Your task to perform on an android device: turn off smart reply in the gmail app Image 0: 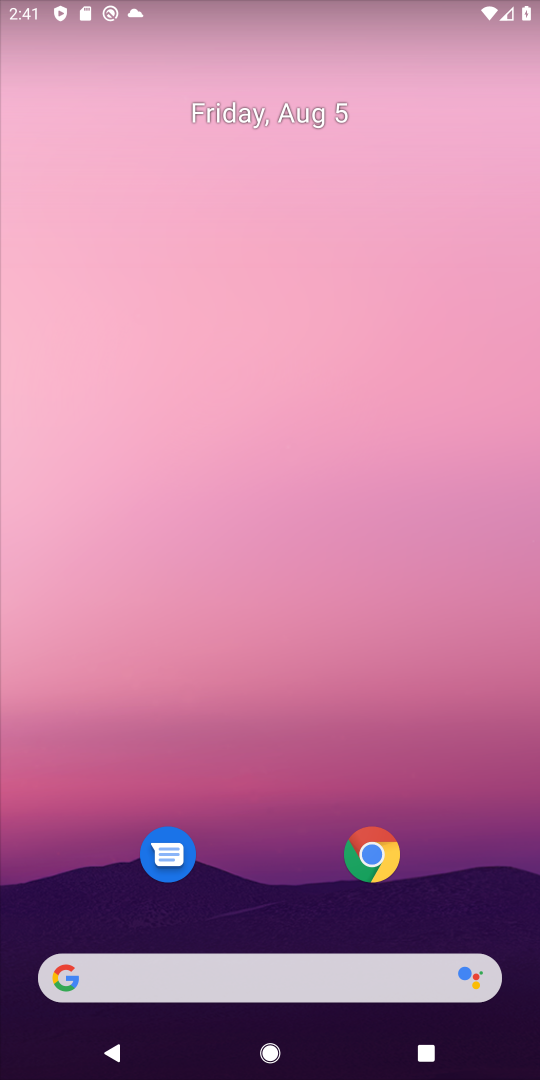
Step 0: drag from (55, 1056) to (312, 354)
Your task to perform on an android device: turn off smart reply in the gmail app Image 1: 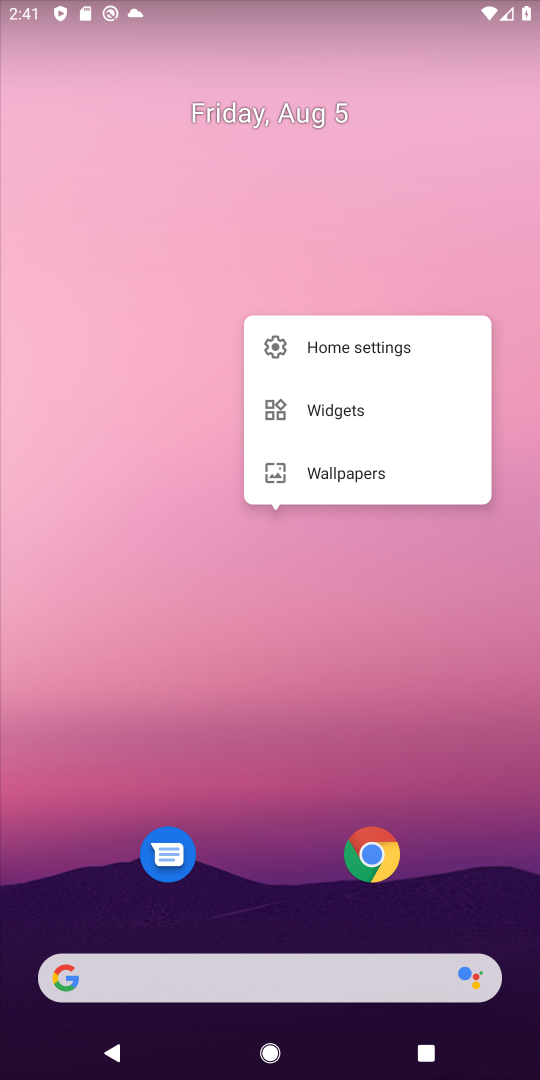
Step 1: drag from (52, 1056) to (389, 275)
Your task to perform on an android device: turn off smart reply in the gmail app Image 2: 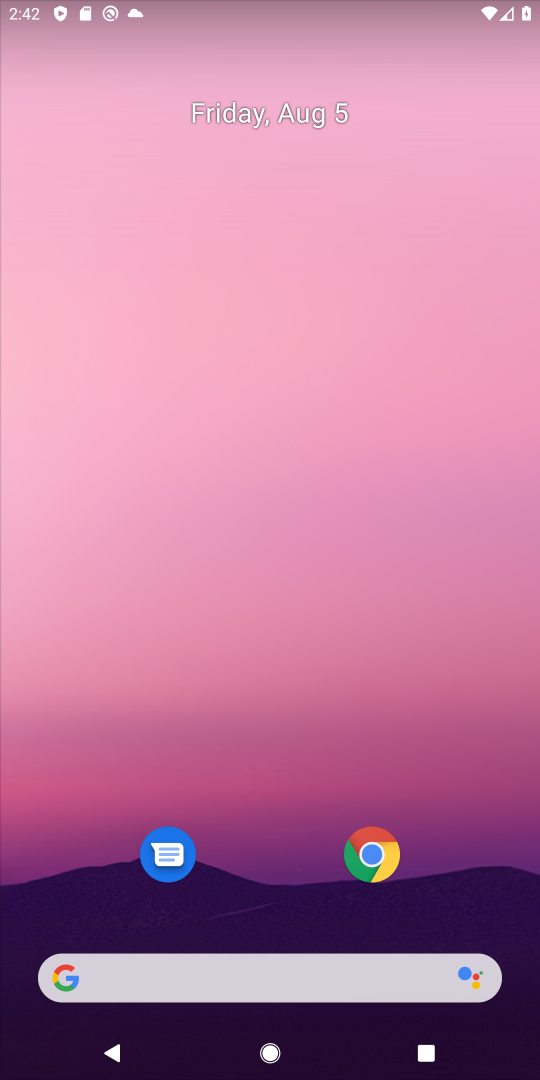
Step 2: click (265, 593)
Your task to perform on an android device: turn off smart reply in the gmail app Image 3: 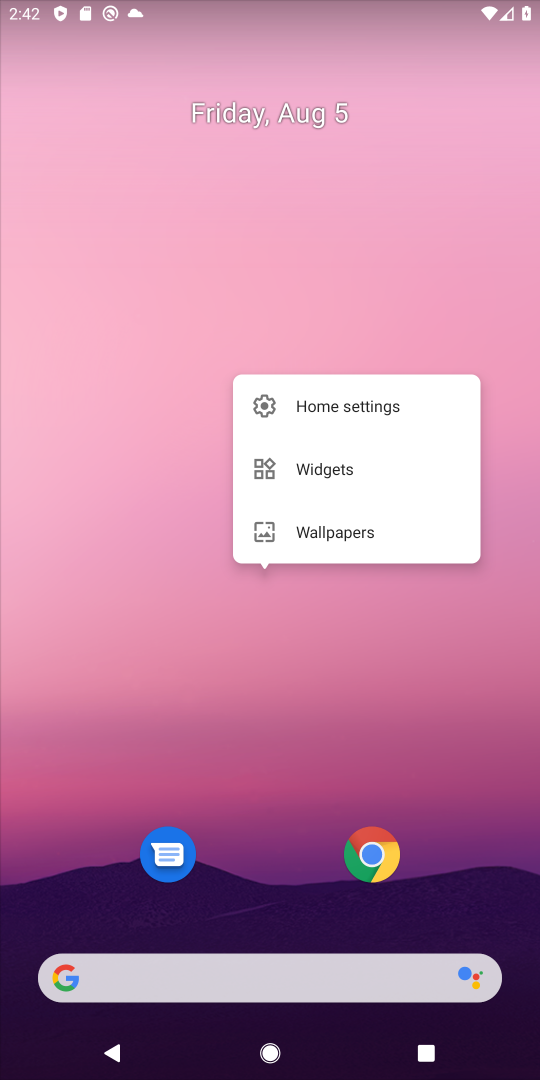
Step 3: task complete